Your task to perform on an android device: Add "bose soundlink mini" to the cart on costco.com, then select checkout. Image 0: 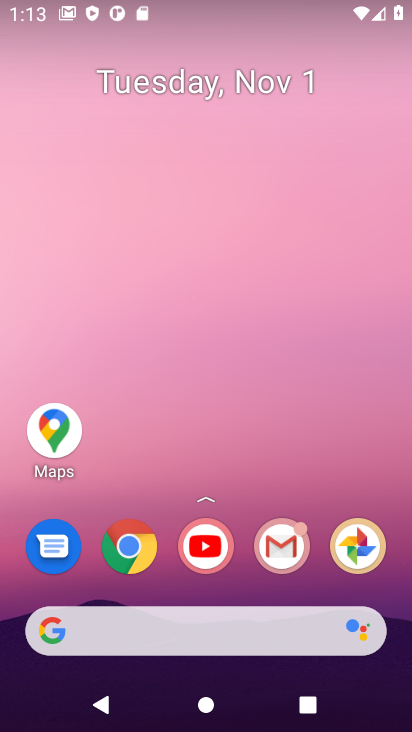
Step 0: task complete